Your task to perform on an android device: toggle airplane mode Image 0: 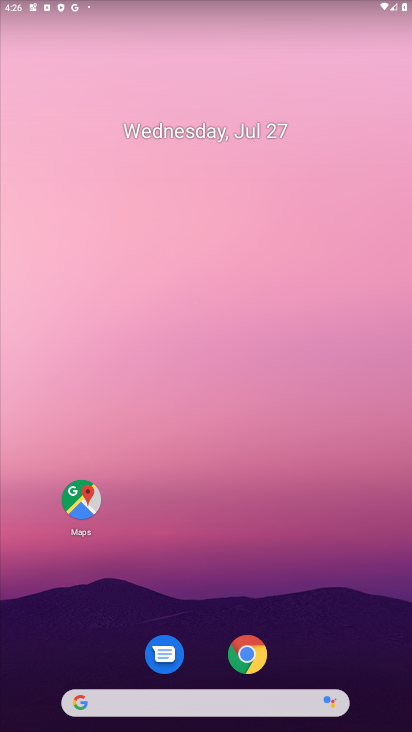
Step 0: drag from (247, 485) to (247, 265)
Your task to perform on an android device: toggle airplane mode Image 1: 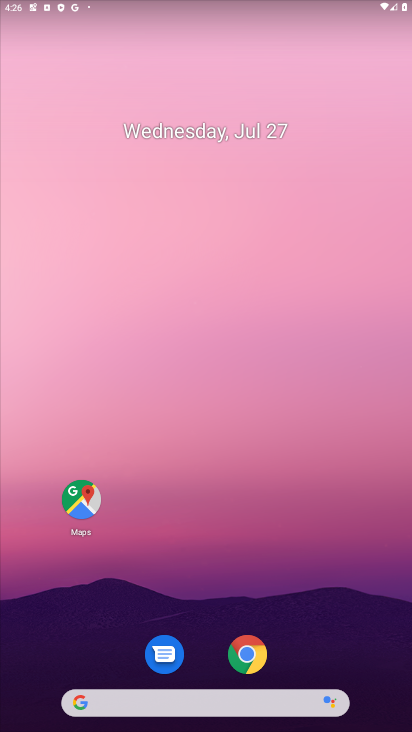
Step 1: drag from (168, 678) to (205, 268)
Your task to perform on an android device: toggle airplane mode Image 2: 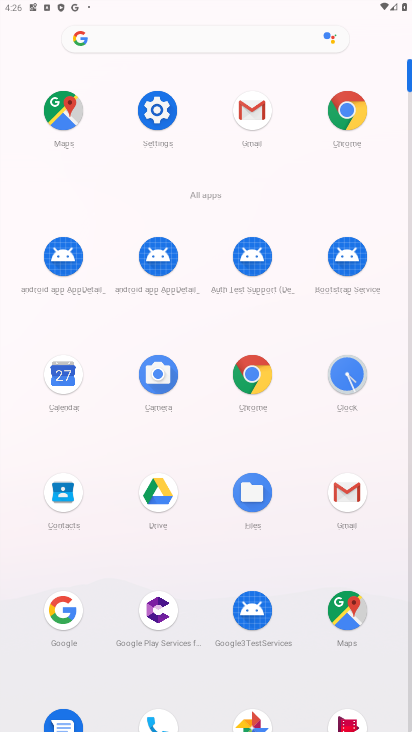
Step 2: click (170, 120)
Your task to perform on an android device: toggle airplane mode Image 3: 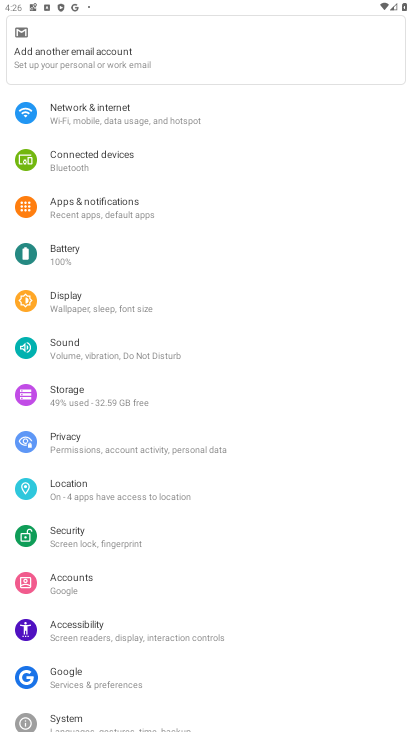
Step 3: click (108, 112)
Your task to perform on an android device: toggle airplane mode Image 4: 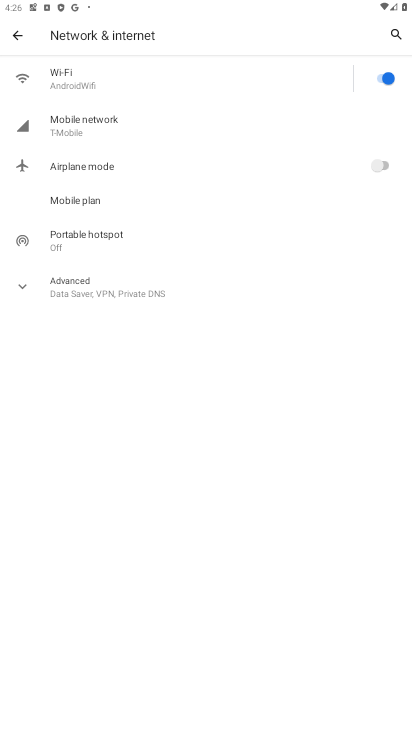
Step 4: click (382, 170)
Your task to perform on an android device: toggle airplane mode Image 5: 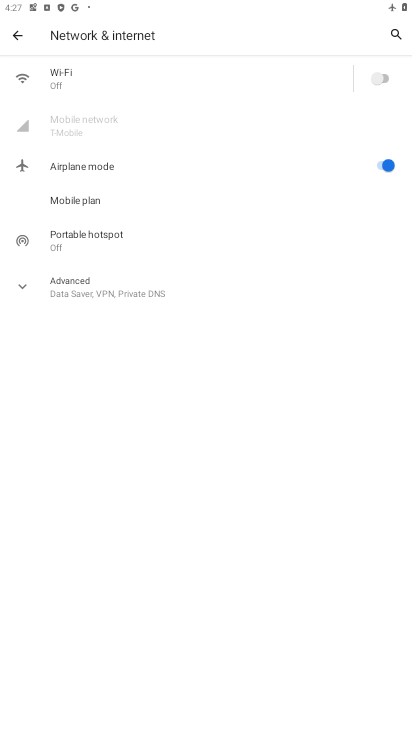
Step 5: task complete